Your task to perform on an android device: turn pop-ups off in chrome Image 0: 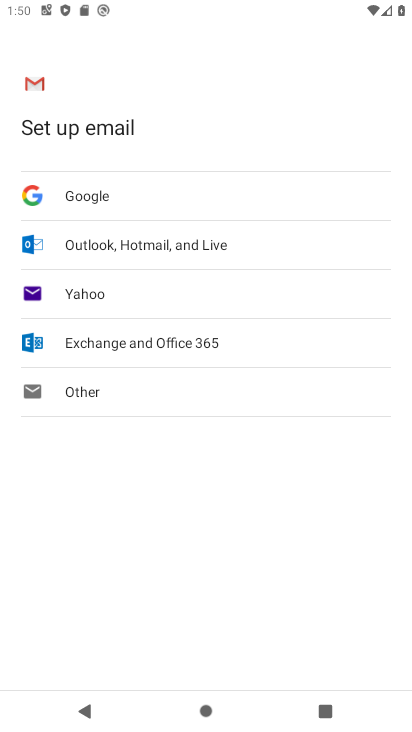
Step 0: press home button
Your task to perform on an android device: turn pop-ups off in chrome Image 1: 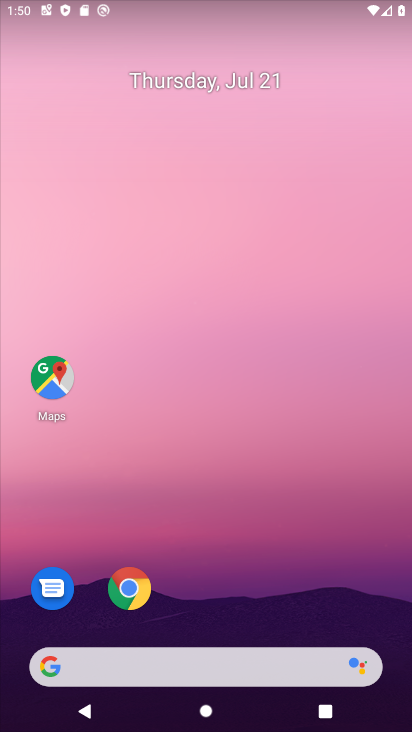
Step 1: click (131, 590)
Your task to perform on an android device: turn pop-ups off in chrome Image 2: 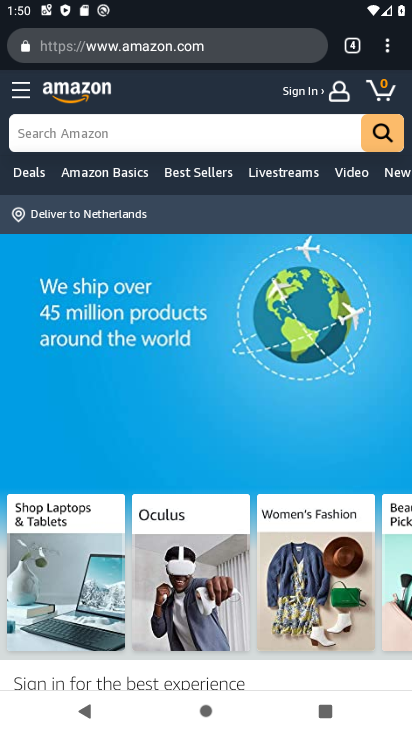
Step 2: click (386, 41)
Your task to perform on an android device: turn pop-ups off in chrome Image 3: 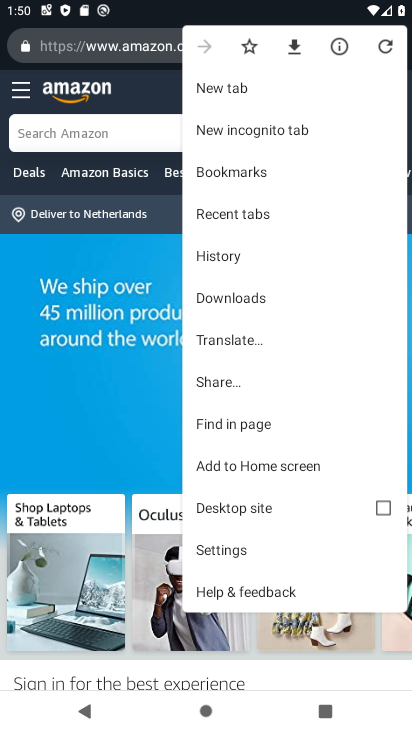
Step 3: click (236, 551)
Your task to perform on an android device: turn pop-ups off in chrome Image 4: 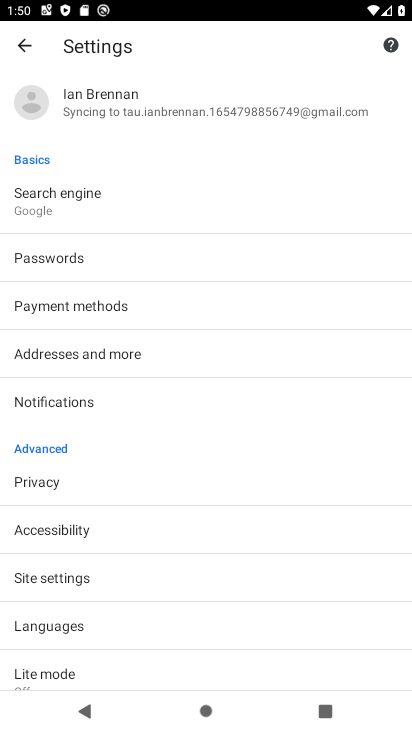
Step 4: click (41, 574)
Your task to perform on an android device: turn pop-ups off in chrome Image 5: 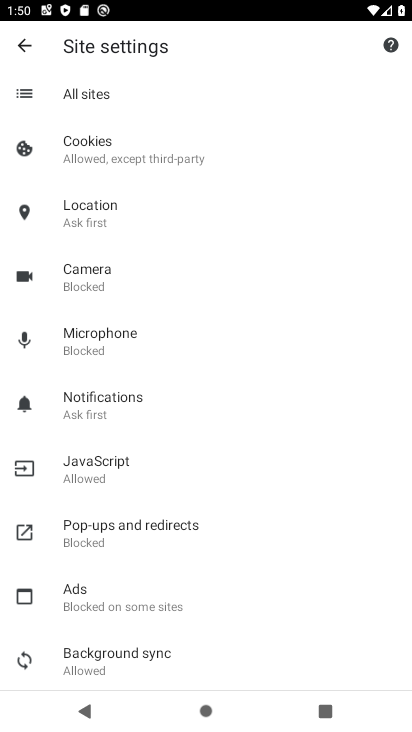
Step 5: click (50, 519)
Your task to perform on an android device: turn pop-ups off in chrome Image 6: 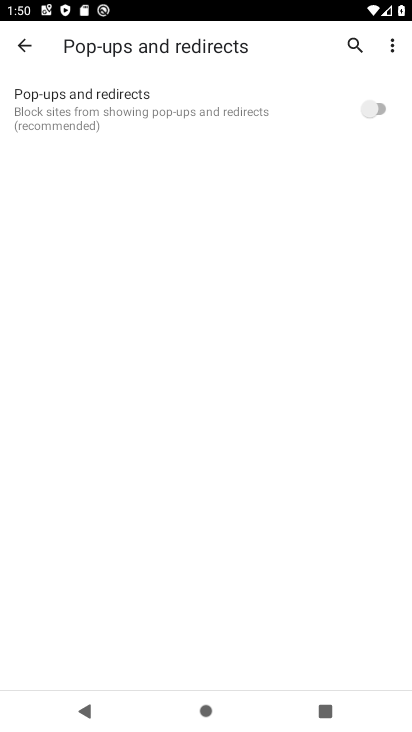
Step 6: click (117, 517)
Your task to perform on an android device: turn pop-ups off in chrome Image 7: 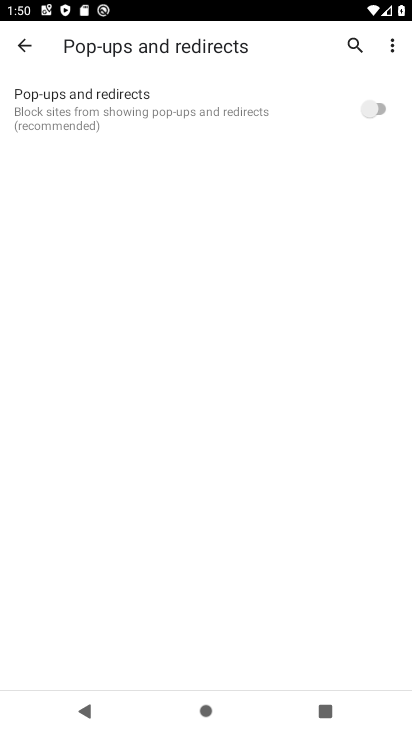
Step 7: task complete